Your task to perform on an android device: turn on data saver in the chrome app Image 0: 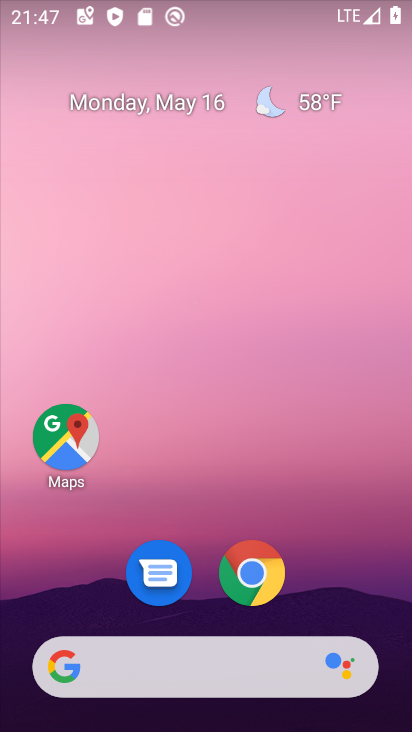
Step 0: click (252, 578)
Your task to perform on an android device: turn on data saver in the chrome app Image 1: 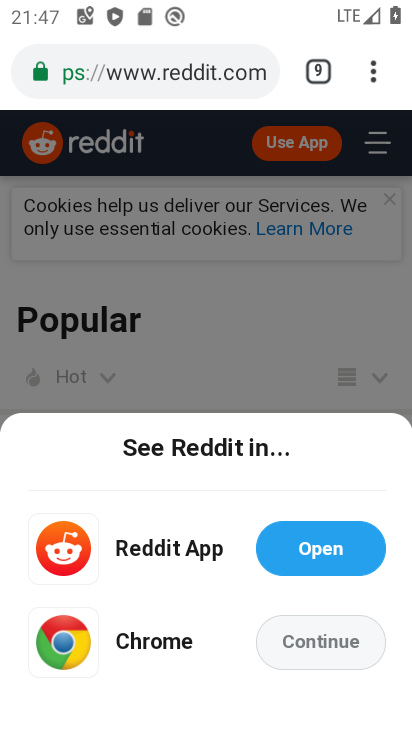
Step 1: click (375, 79)
Your task to perform on an android device: turn on data saver in the chrome app Image 2: 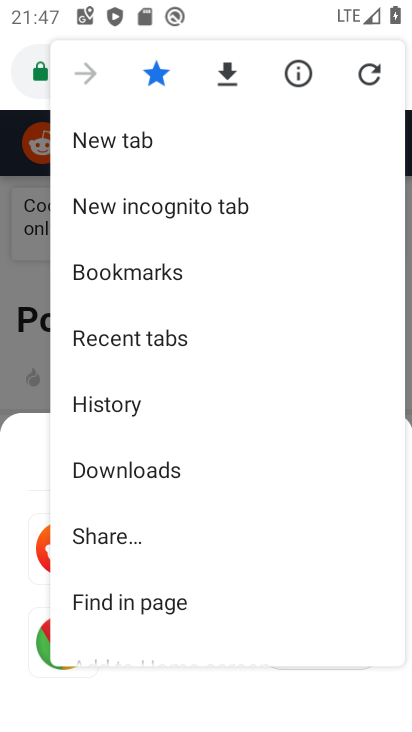
Step 2: drag from (121, 556) to (134, 149)
Your task to perform on an android device: turn on data saver in the chrome app Image 3: 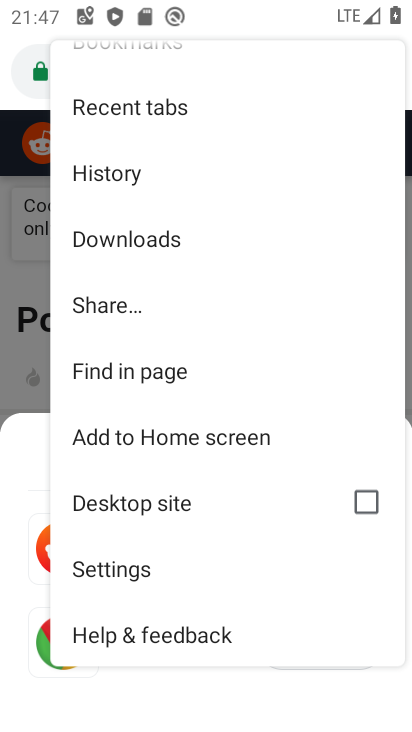
Step 3: click (125, 573)
Your task to perform on an android device: turn on data saver in the chrome app Image 4: 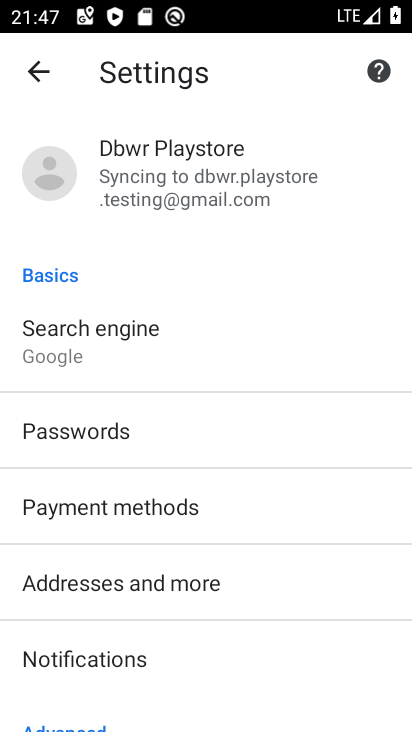
Step 4: drag from (122, 643) to (115, 311)
Your task to perform on an android device: turn on data saver in the chrome app Image 5: 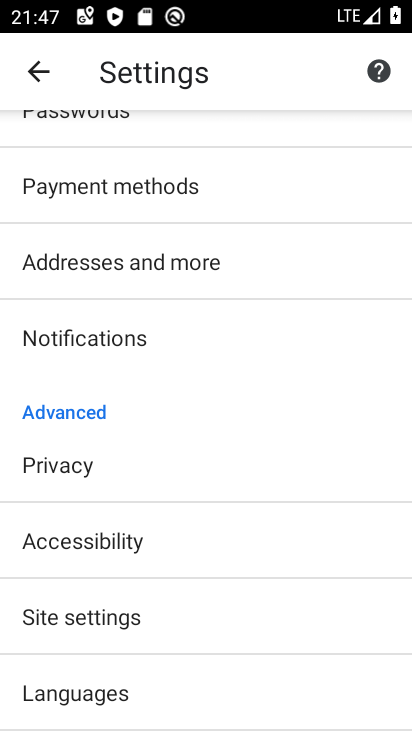
Step 5: drag from (157, 639) to (153, 201)
Your task to perform on an android device: turn on data saver in the chrome app Image 6: 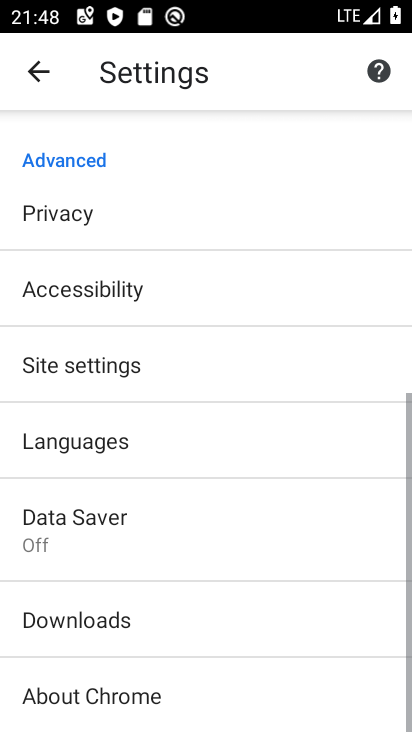
Step 6: click (77, 520)
Your task to perform on an android device: turn on data saver in the chrome app Image 7: 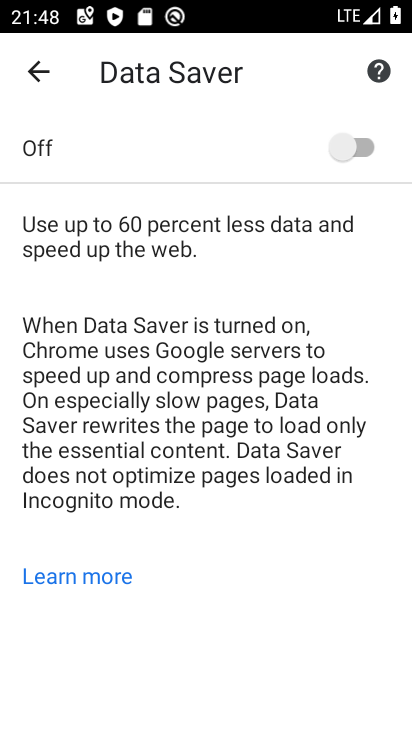
Step 7: click (358, 143)
Your task to perform on an android device: turn on data saver in the chrome app Image 8: 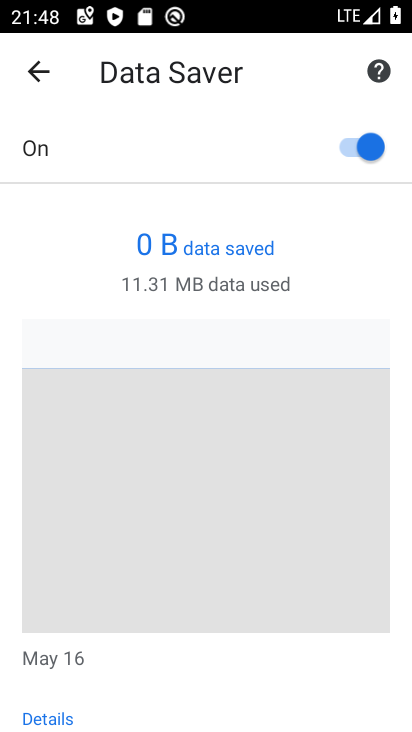
Step 8: task complete